Your task to perform on an android device: Open accessibility settings Image 0: 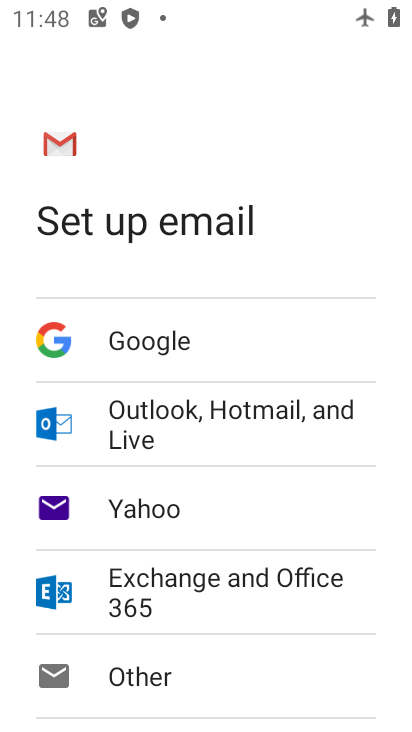
Step 0: press home button
Your task to perform on an android device: Open accessibility settings Image 1: 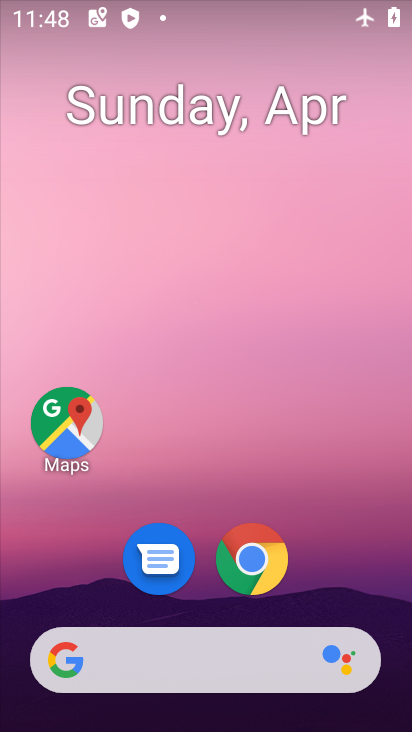
Step 1: drag from (333, 328) to (349, 4)
Your task to perform on an android device: Open accessibility settings Image 2: 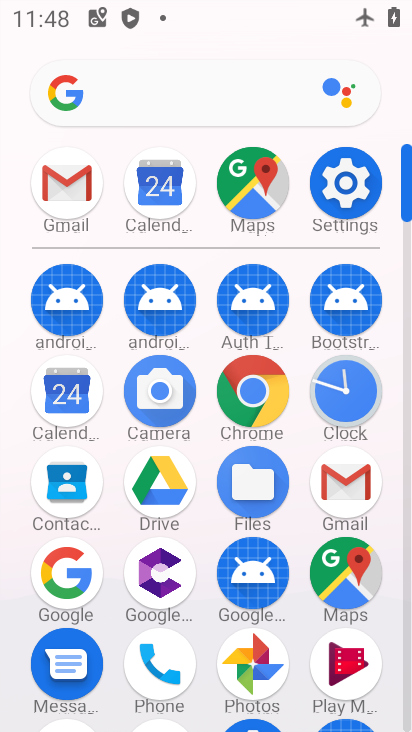
Step 2: click (344, 185)
Your task to perform on an android device: Open accessibility settings Image 3: 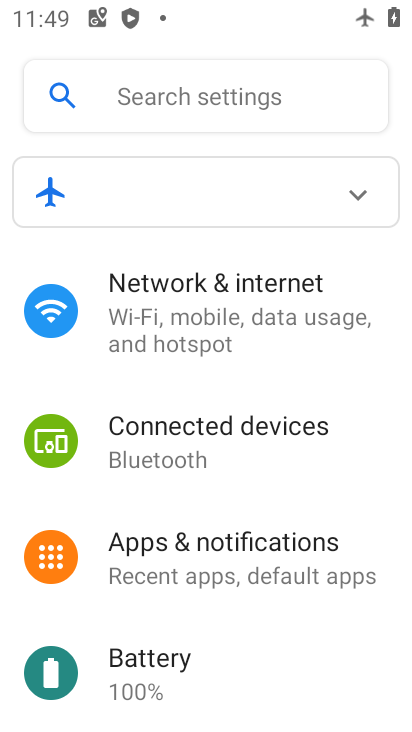
Step 3: drag from (169, 619) to (215, 347)
Your task to perform on an android device: Open accessibility settings Image 4: 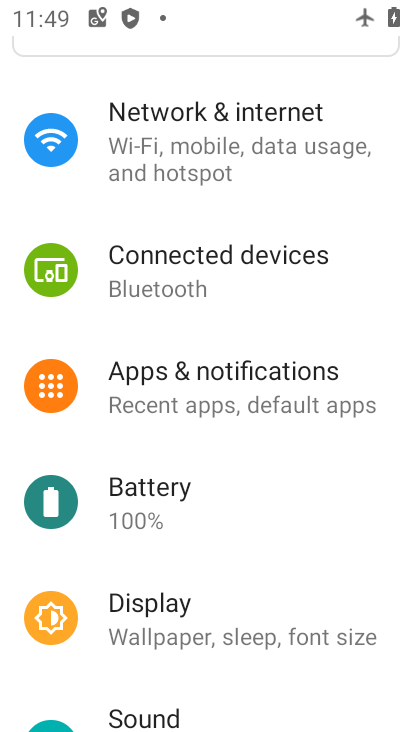
Step 4: drag from (280, 523) to (272, 318)
Your task to perform on an android device: Open accessibility settings Image 5: 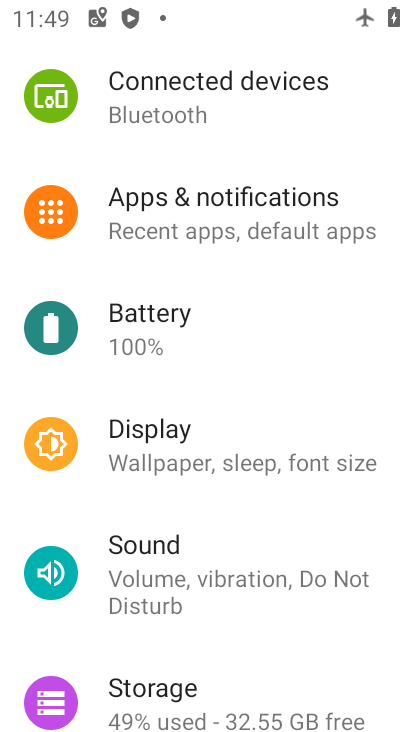
Step 5: drag from (341, 552) to (346, 362)
Your task to perform on an android device: Open accessibility settings Image 6: 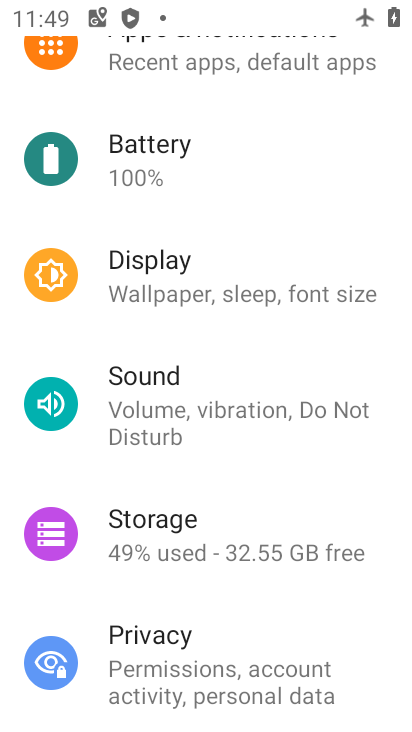
Step 6: drag from (321, 511) to (315, 319)
Your task to perform on an android device: Open accessibility settings Image 7: 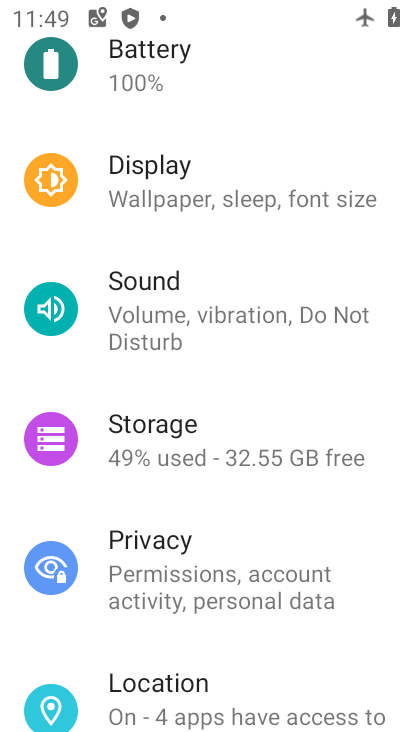
Step 7: drag from (250, 519) to (249, 385)
Your task to perform on an android device: Open accessibility settings Image 8: 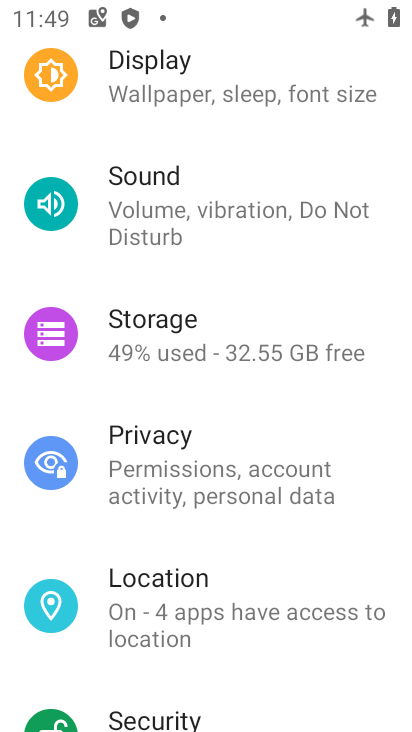
Step 8: drag from (247, 508) to (244, 378)
Your task to perform on an android device: Open accessibility settings Image 9: 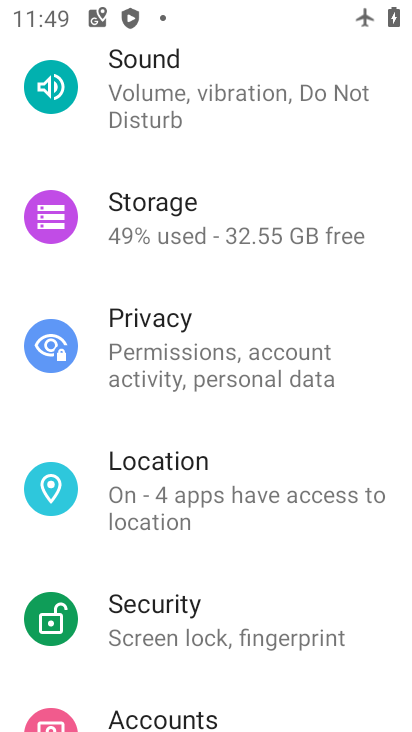
Step 9: drag from (241, 566) to (241, 395)
Your task to perform on an android device: Open accessibility settings Image 10: 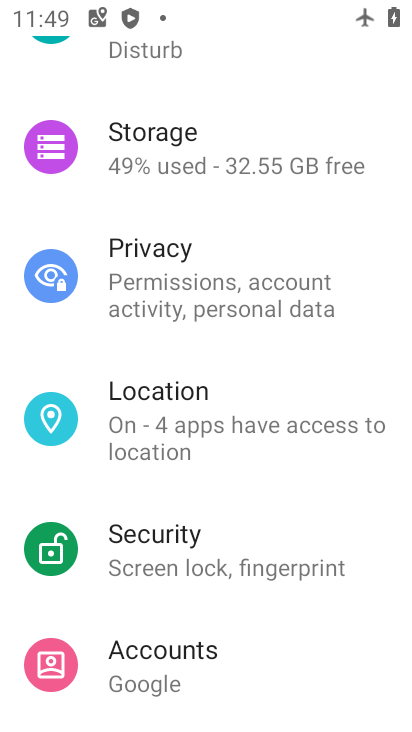
Step 10: drag from (222, 561) to (219, 406)
Your task to perform on an android device: Open accessibility settings Image 11: 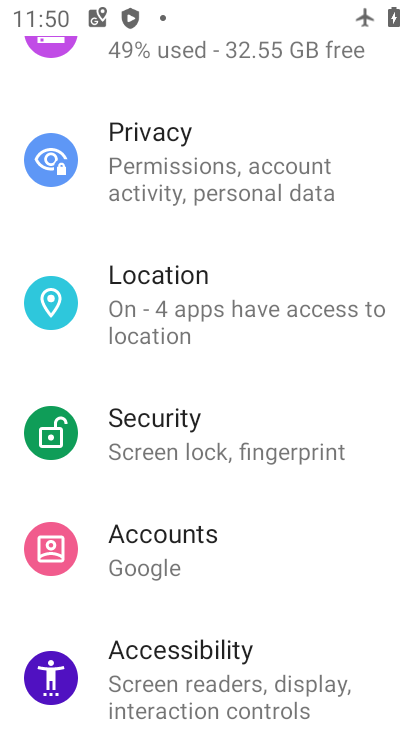
Step 11: click (212, 661)
Your task to perform on an android device: Open accessibility settings Image 12: 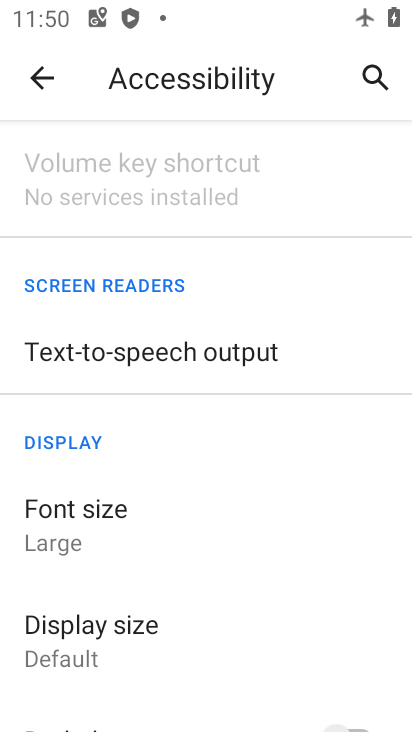
Step 12: task complete